Your task to perform on an android device: What is the recent news? Image 0: 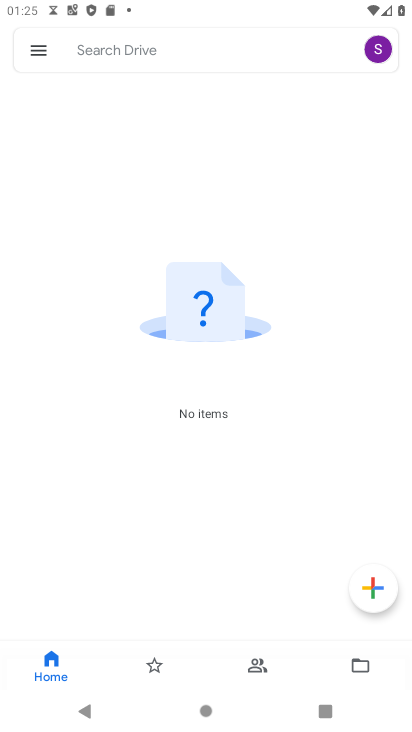
Step 0: press home button
Your task to perform on an android device: What is the recent news? Image 1: 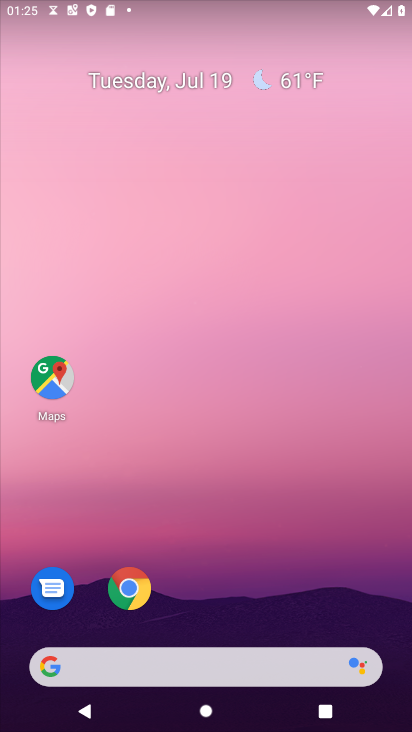
Step 1: click (175, 665)
Your task to perform on an android device: What is the recent news? Image 2: 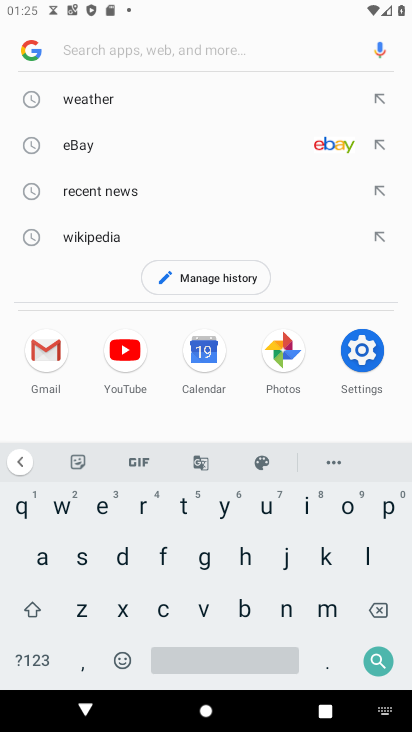
Step 2: click (120, 191)
Your task to perform on an android device: What is the recent news? Image 3: 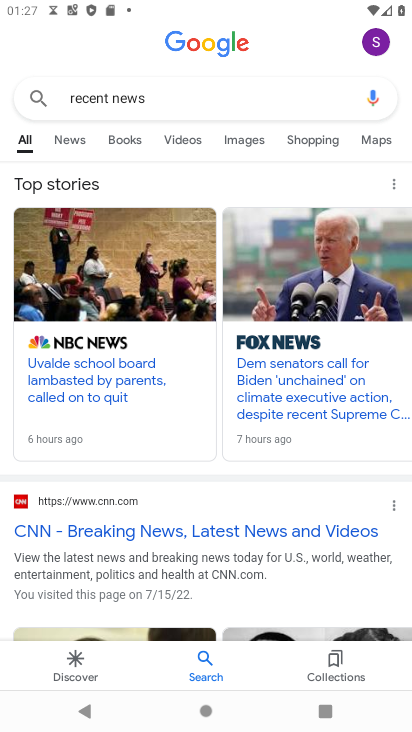
Step 3: task complete